Your task to perform on an android device: turn notification dots off Image 0: 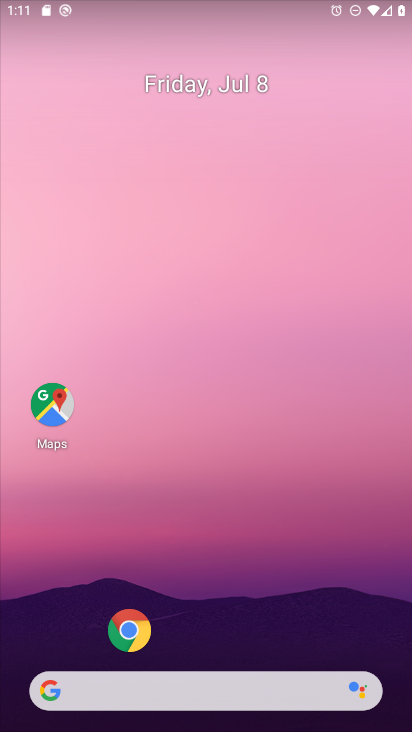
Step 0: drag from (215, 596) to (252, 34)
Your task to perform on an android device: turn notification dots off Image 1: 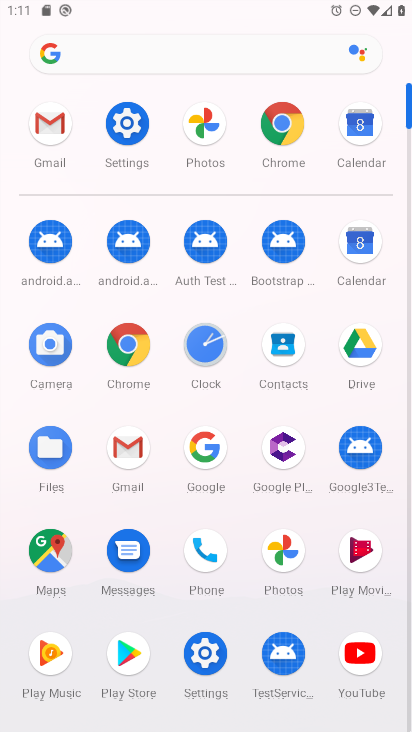
Step 1: click (116, 128)
Your task to perform on an android device: turn notification dots off Image 2: 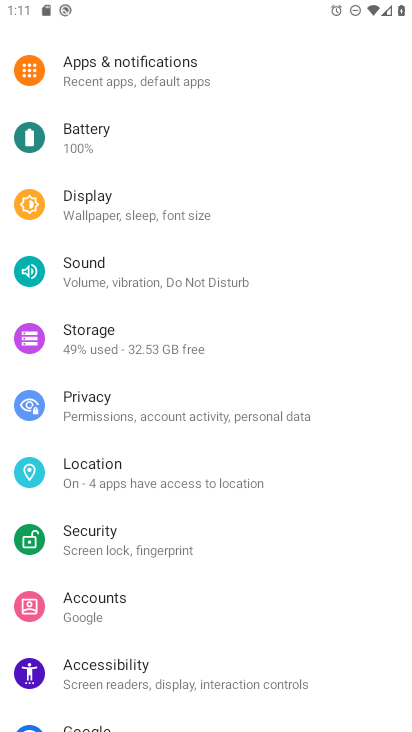
Step 2: click (210, 80)
Your task to perform on an android device: turn notification dots off Image 3: 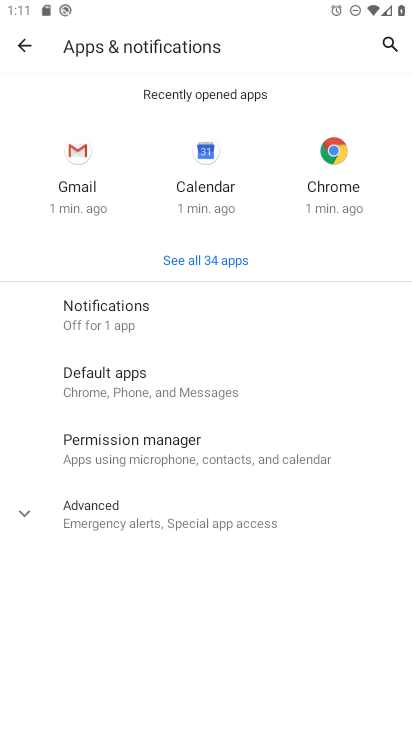
Step 3: click (135, 321)
Your task to perform on an android device: turn notification dots off Image 4: 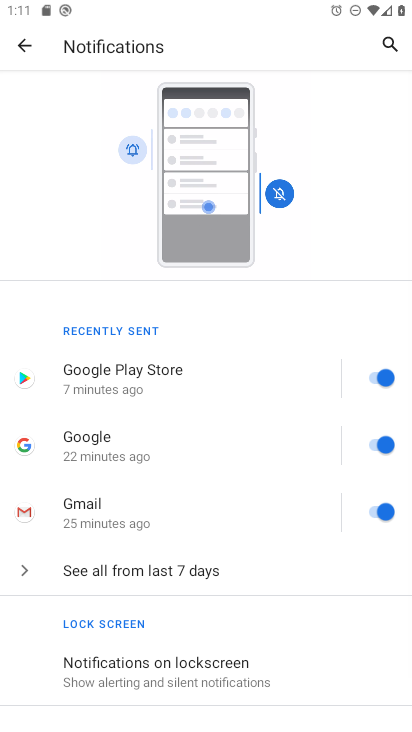
Step 4: drag from (219, 577) to (226, 328)
Your task to perform on an android device: turn notification dots off Image 5: 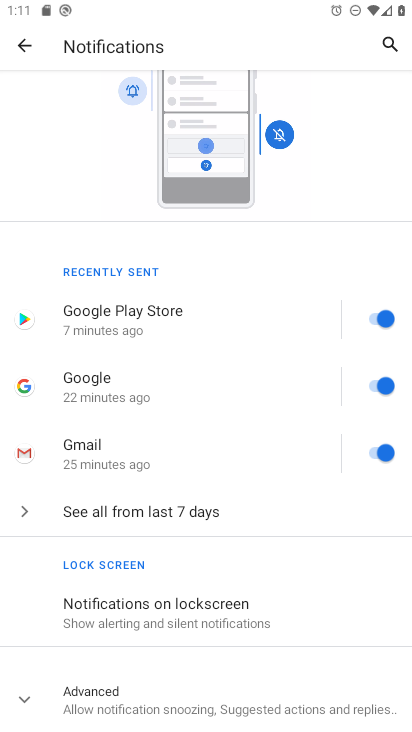
Step 5: click (204, 709)
Your task to perform on an android device: turn notification dots off Image 6: 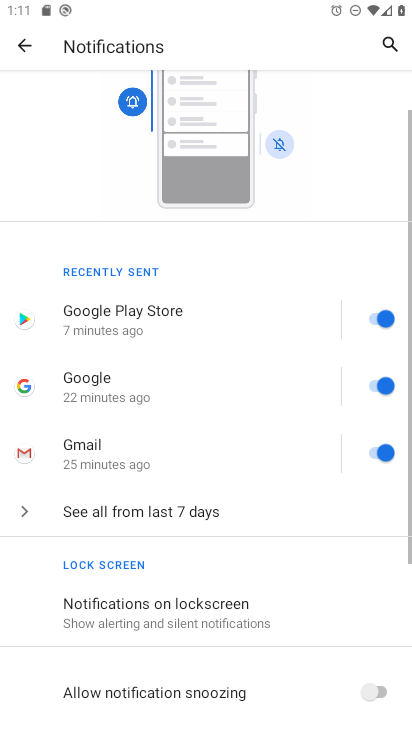
Step 6: task complete